Your task to perform on an android device: clear history in the chrome app Image 0: 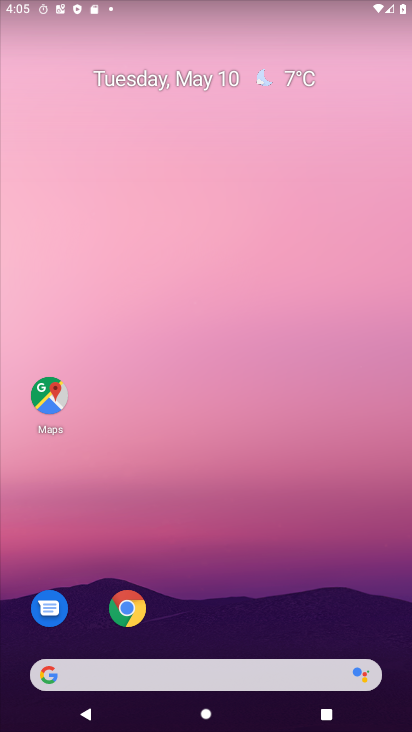
Step 0: click (135, 607)
Your task to perform on an android device: clear history in the chrome app Image 1: 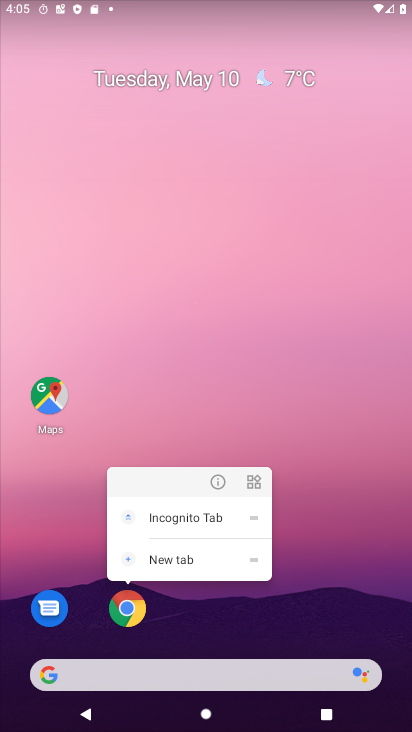
Step 1: click (133, 605)
Your task to perform on an android device: clear history in the chrome app Image 2: 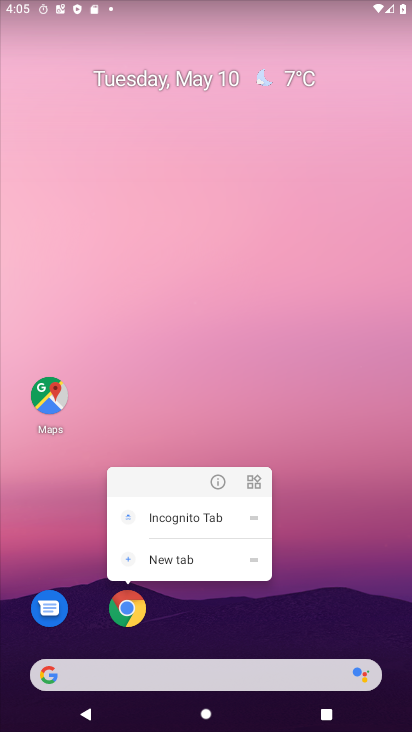
Step 2: click (125, 612)
Your task to perform on an android device: clear history in the chrome app Image 3: 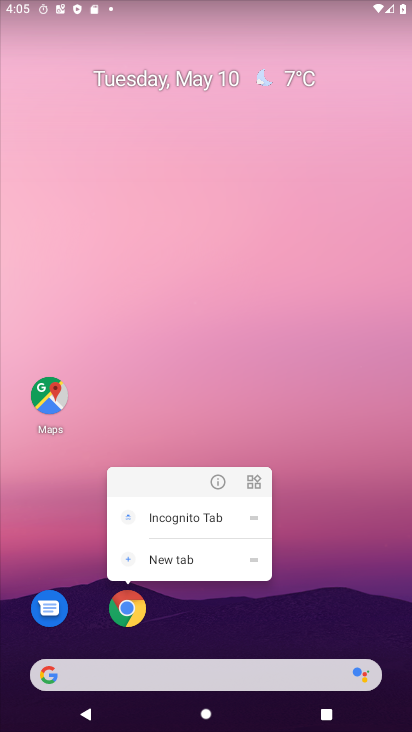
Step 3: click (125, 612)
Your task to perform on an android device: clear history in the chrome app Image 4: 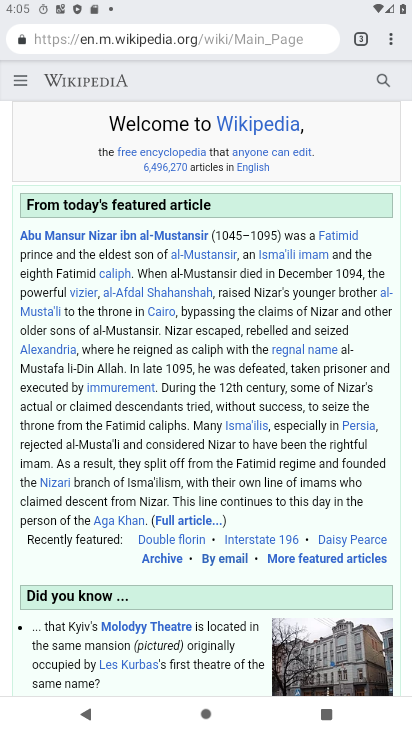
Step 4: click (393, 33)
Your task to perform on an android device: clear history in the chrome app Image 5: 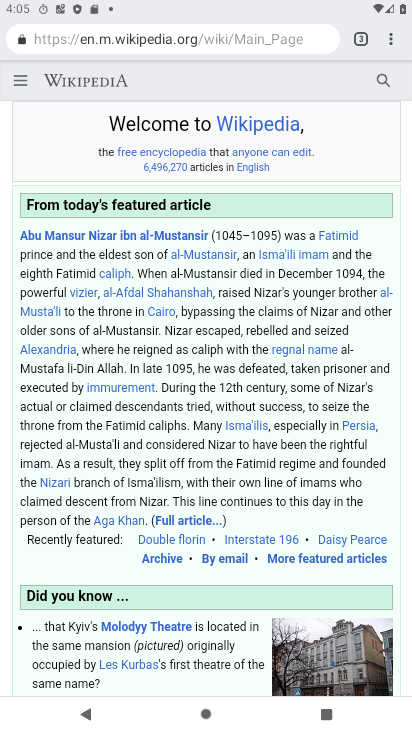
Step 5: click (388, 42)
Your task to perform on an android device: clear history in the chrome app Image 6: 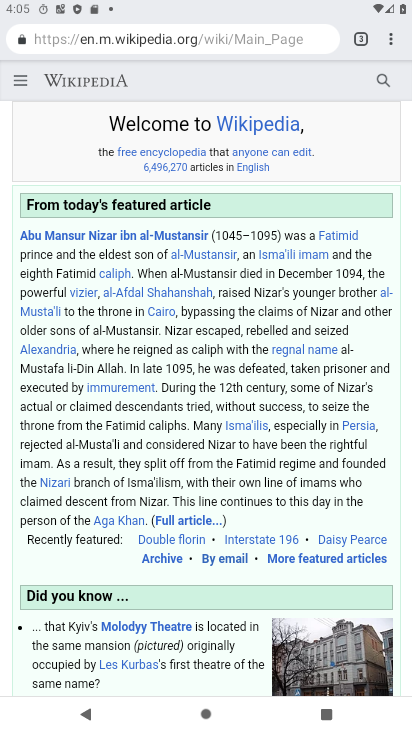
Step 6: click (252, 466)
Your task to perform on an android device: clear history in the chrome app Image 7: 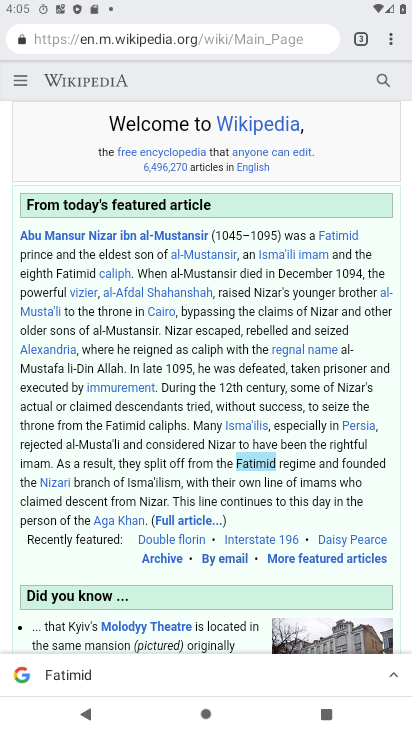
Step 7: drag from (396, 39) to (237, 474)
Your task to perform on an android device: clear history in the chrome app Image 8: 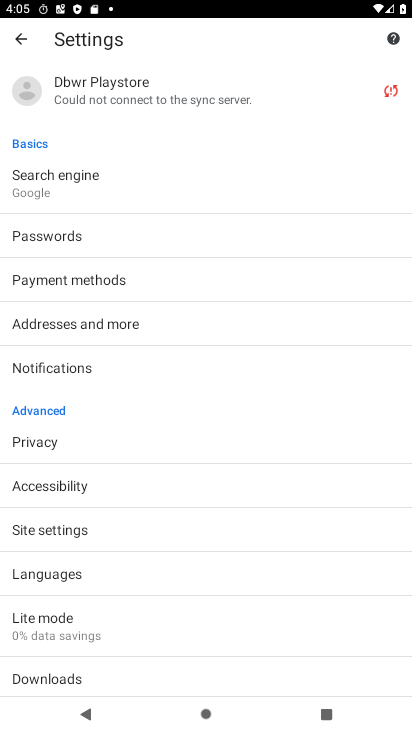
Step 8: click (46, 435)
Your task to perform on an android device: clear history in the chrome app Image 9: 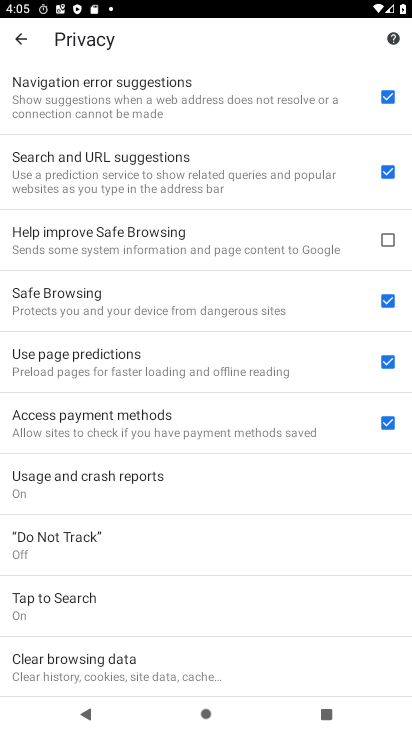
Step 9: drag from (127, 621) to (160, 300)
Your task to perform on an android device: clear history in the chrome app Image 10: 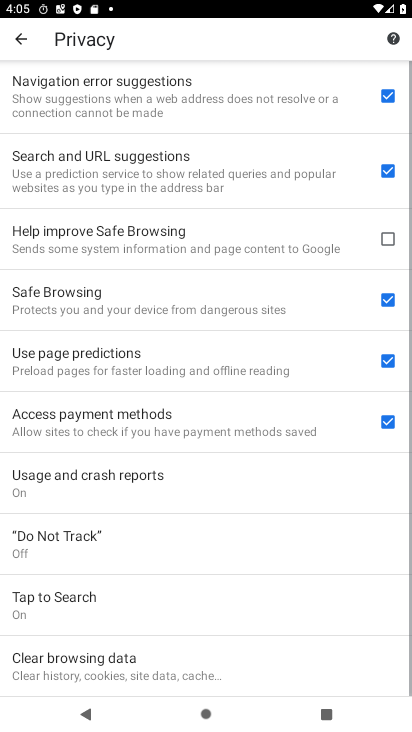
Step 10: click (118, 667)
Your task to perform on an android device: clear history in the chrome app Image 11: 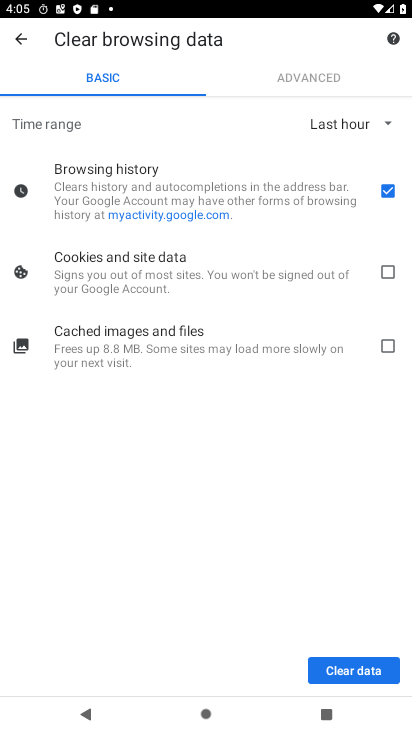
Step 11: click (395, 659)
Your task to perform on an android device: clear history in the chrome app Image 12: 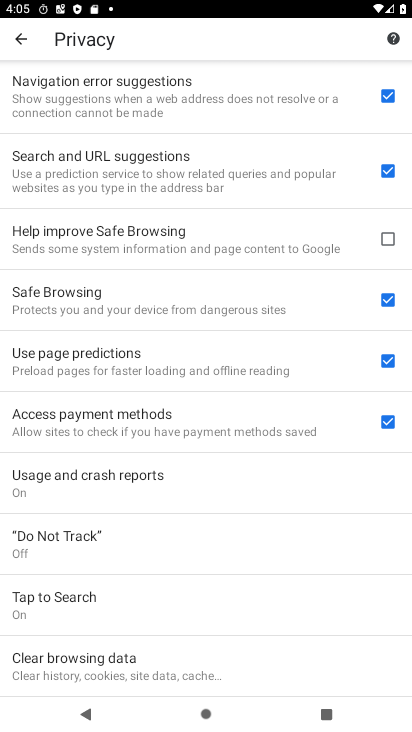
Step 12: task complete